Your task to perform on an android device: find which apps use the phone's location Image 0: 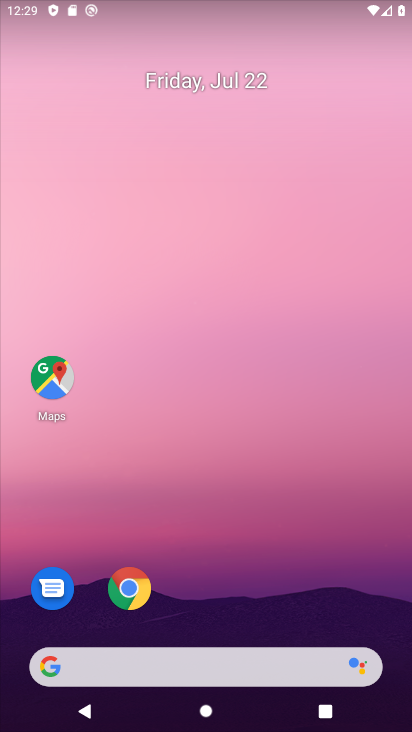
Step 0: drag from (208, 628) to (53, 116)
Your task to perform on an android device: find which apps use the phone's location Image 1: 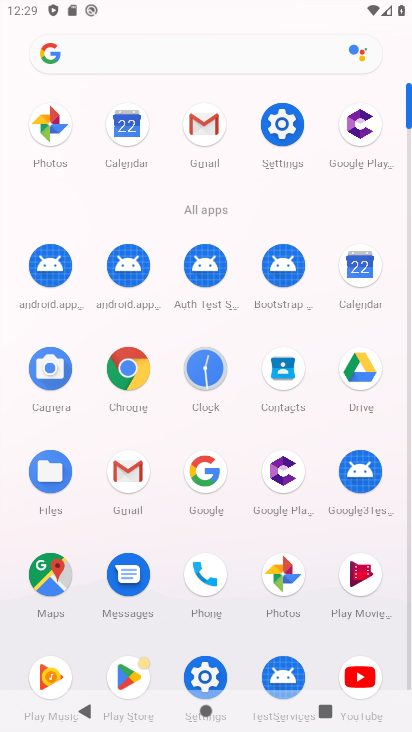
Step 1: click (198, 670)
Your task to perform on an android device: find which apps use the phone's location Image 2: 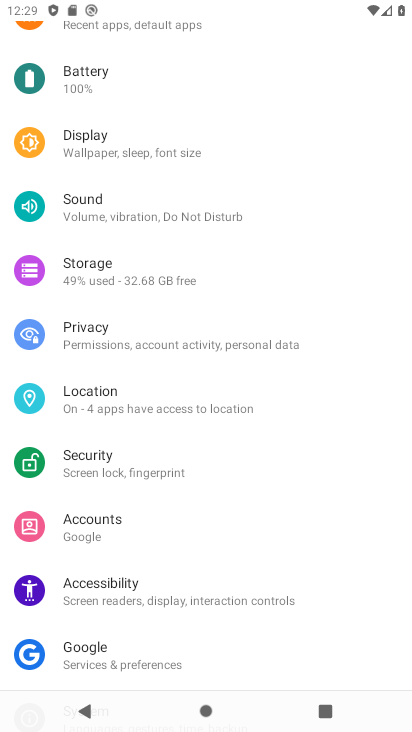
Step 2: drag from (167, 155) to (186, 503)
Your task to perform on an android device: find which apps use the phone's location Image 3: 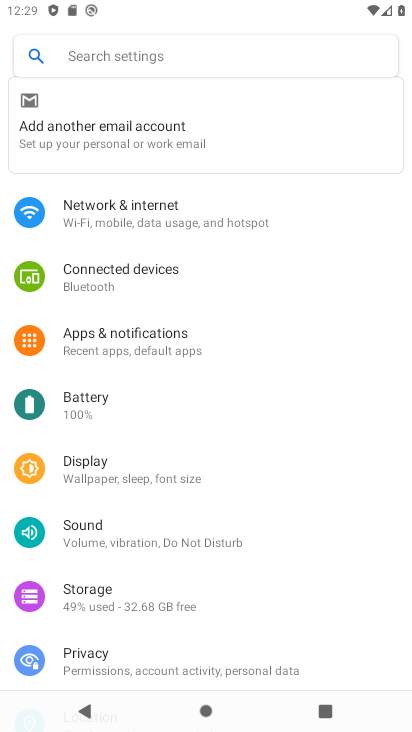
Step 3: drag from (127, 580) to (79, 239)
Your task to perform on an android device: find which apps use the phone's location Image 4: 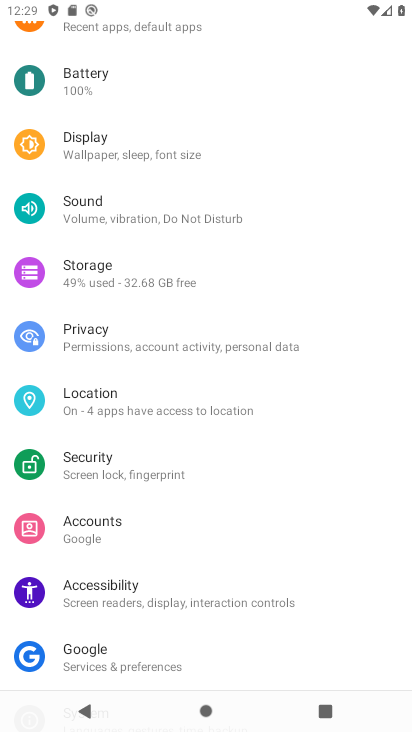
Step 4: click (67, 394)
Your task to perform on an android device: find which apps use the phone's location Image 5: 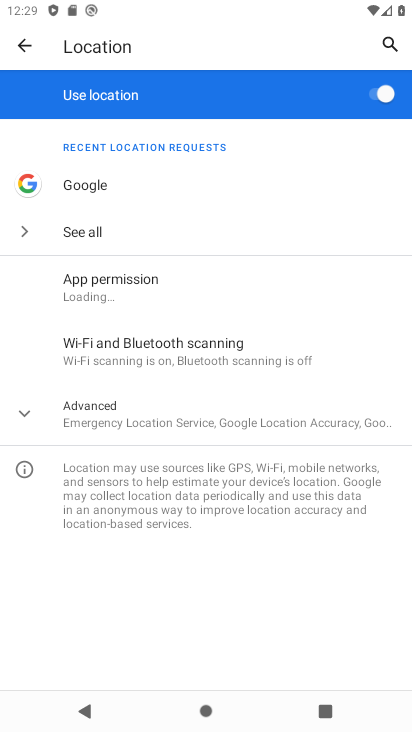
Step 5: click (67, 394)
Your task to perform on an android device: find which apps use the phone's location Image 6: 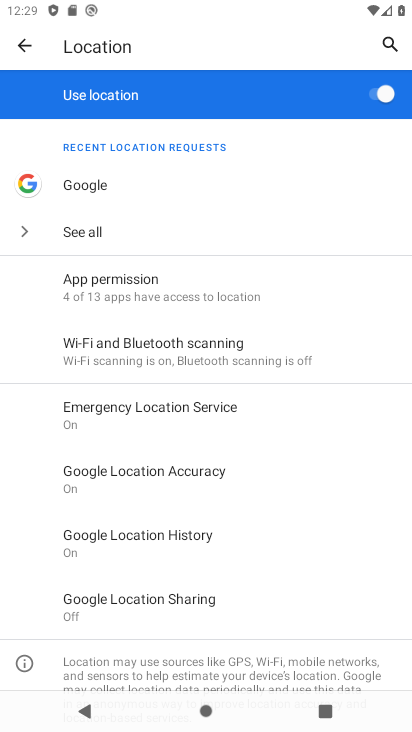
Step 6: click (112, 292)
Your task to perform on an android device: find which apps use the phone's location Image 7: 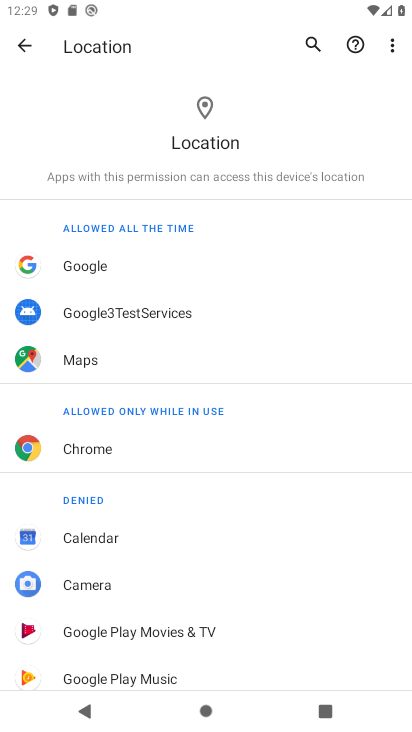
Step 7: task complete